Your task to perform on an android device: check storage Image 0: 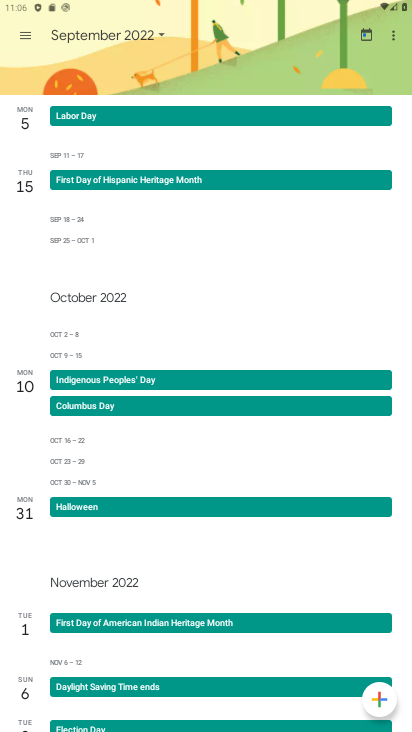
Step 0: press home button
Your task to perform on an android device: check storage Image 1: 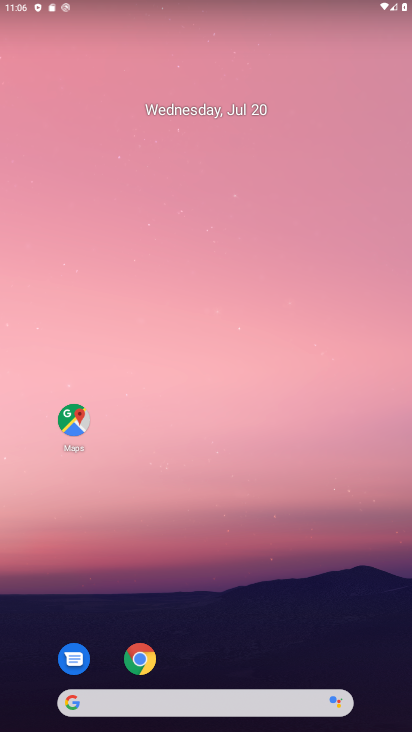
Step 1: drag from (226, 642) to (273, 216)
Your task to perform on an android device: check storage Image 2: 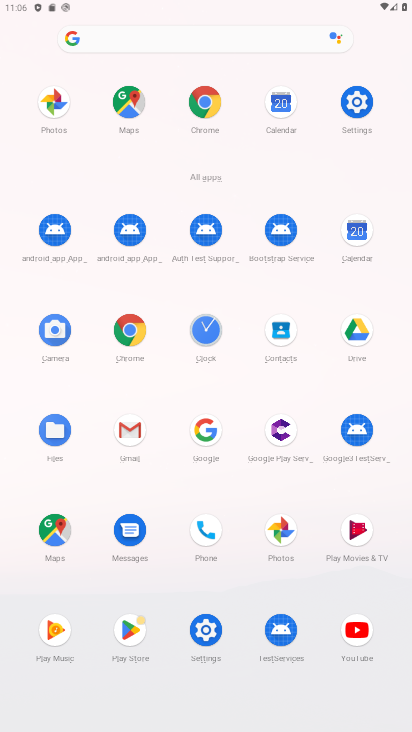
Step 2: click (211, 643)
Your task to perform on an android device: check storage Image 3: 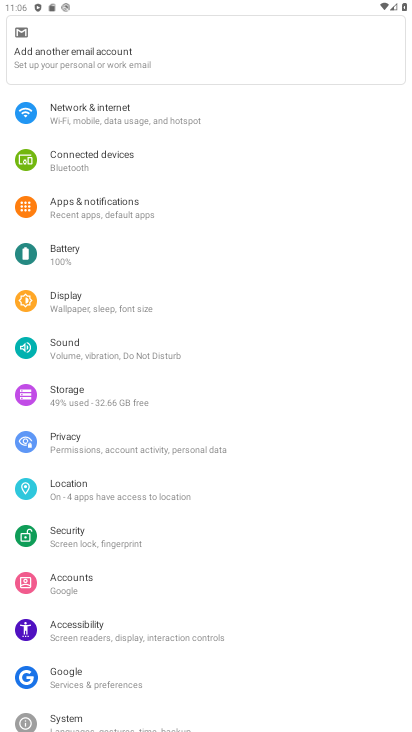
Step 3: click (106, 397)
Your task to perform on an android device: check storage Image 4: 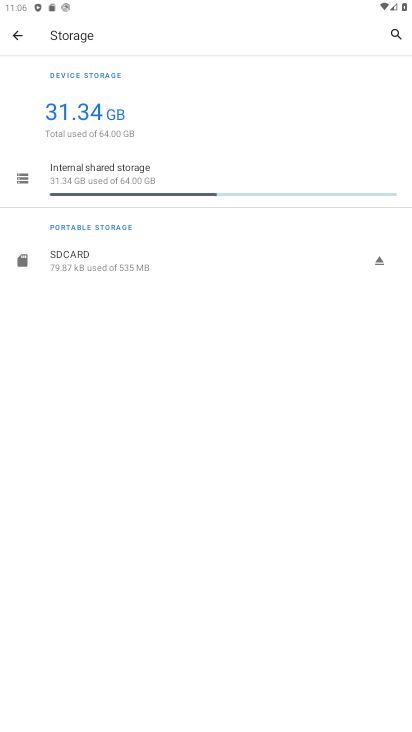
Step 4: click (102, 181)
Your task to perform on an android device: check storage Image 5: 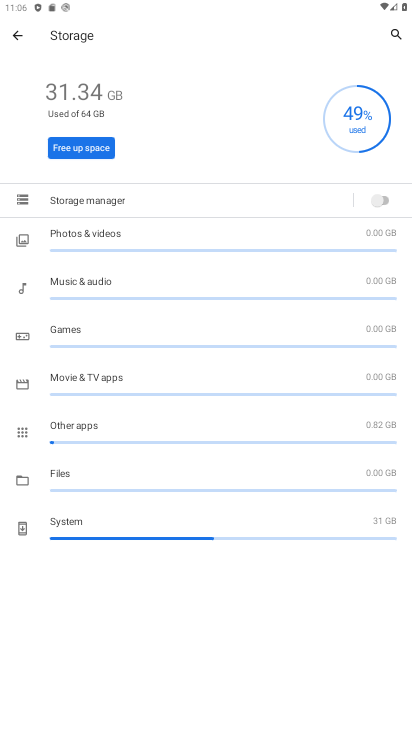
Step 5: task complete